Your task to perform on an android device: Go to Yahoo.com Image 0: 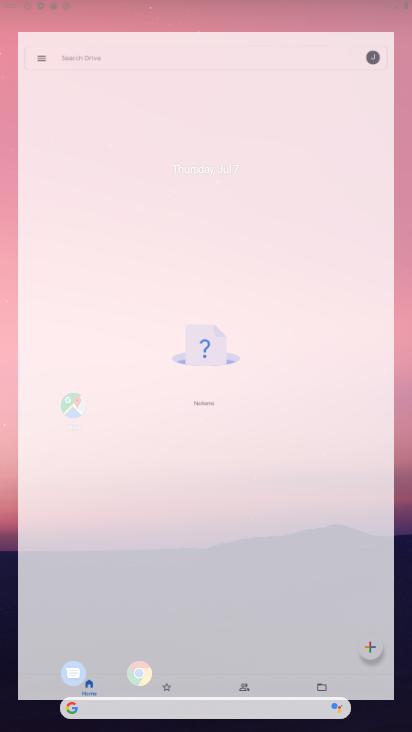
Step 0: drag from (210, 660) to (245, 216)
Your task to perform on an android device: Go to Yahoo.com Image 1: 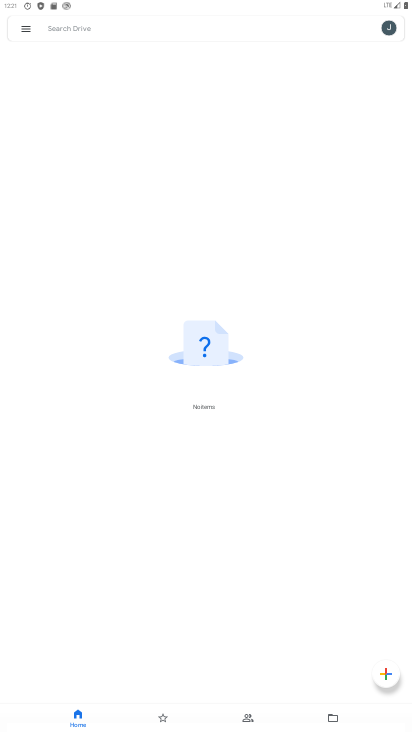
Step 1: drag from (212, 730) to (281, 169)
Your task to perform on an android device: Go to Yahoo.com Image 2: 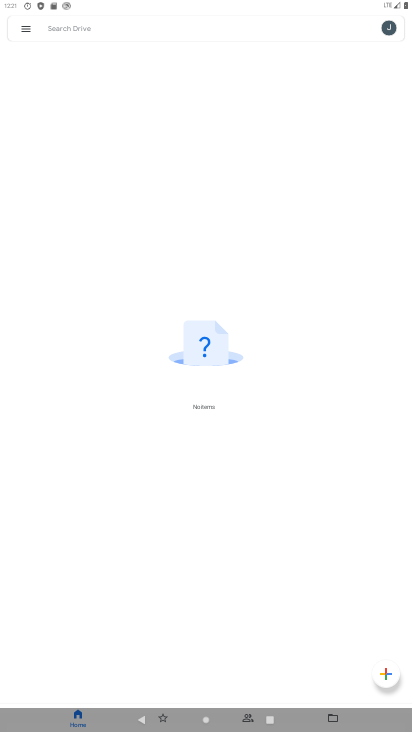
Step 2: click (199, 717)
Your task to perform on an android device: Go to Yahoo.com Image 3: 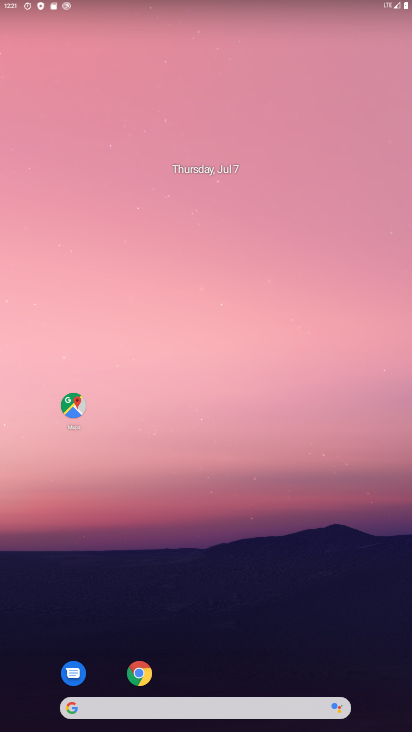
Step 3: click (145, 682)
Your task to perform on an android device: Go to Yahoo.com Image 4: 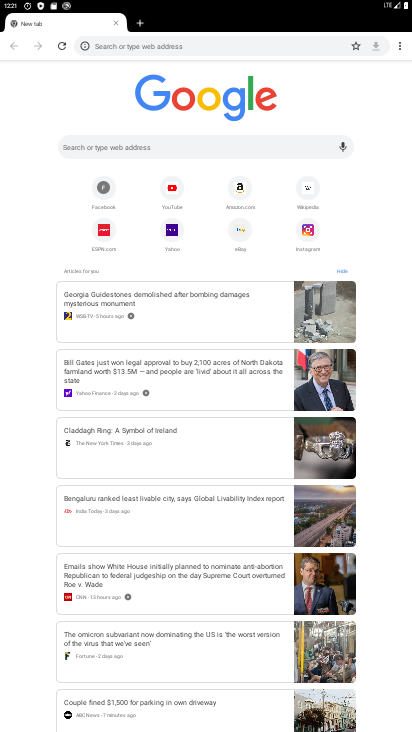
Step 4: click (146, 35)
Your task to perform on an android device: Go to Yahoo.com Image 5: 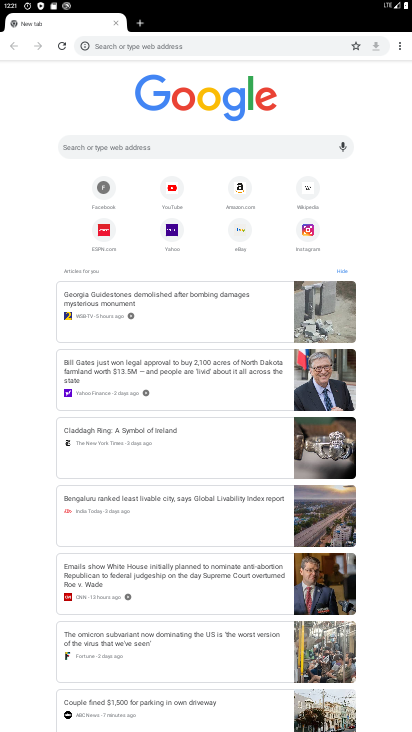
Step 5: click (156, 45)
Your task to perform on an android device: Go to Yahoo.com Image 6: 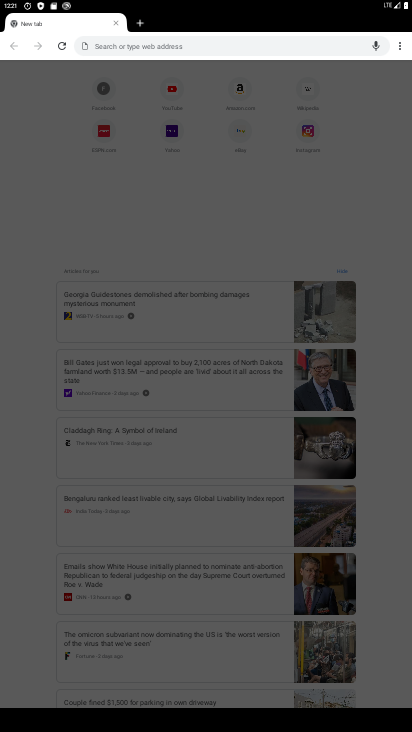
Step 6: type "yahoo.com"
Your task to perform on an android device: Go to Yahoo.com Image 7: 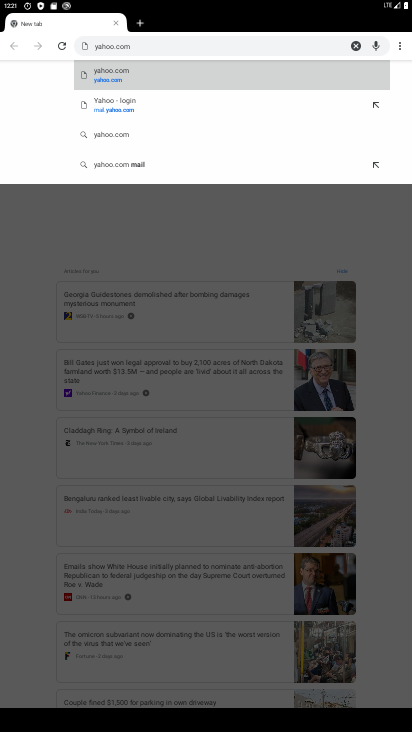
Step 7: type ""
Your task to perform on an android device: Go to Yahoo.com Image 8: 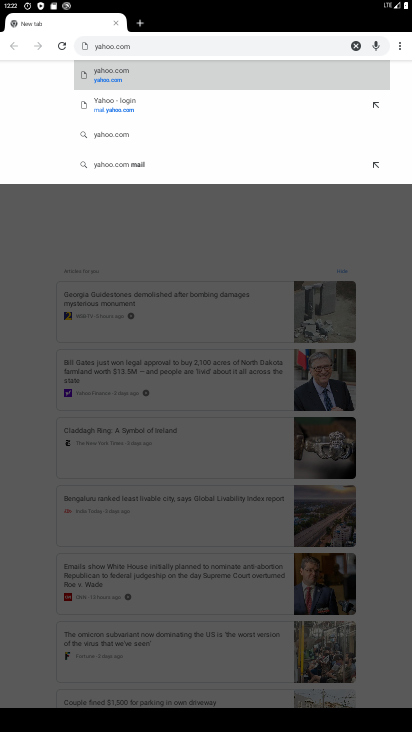
Step 8: click (165, 78)
Your task to perform on an android device: Go to Yahoo.com Image 9: 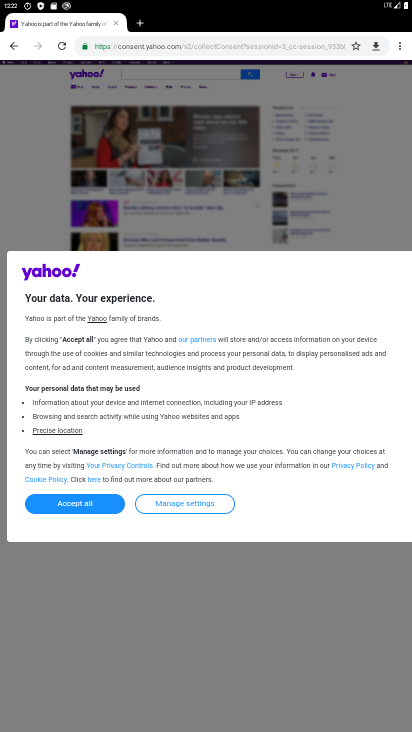
Step 9: task complete